Your task to perform on an android device: open app "Viber Messenger" (install if not already installed), go to login, and select forgot password Image 0: 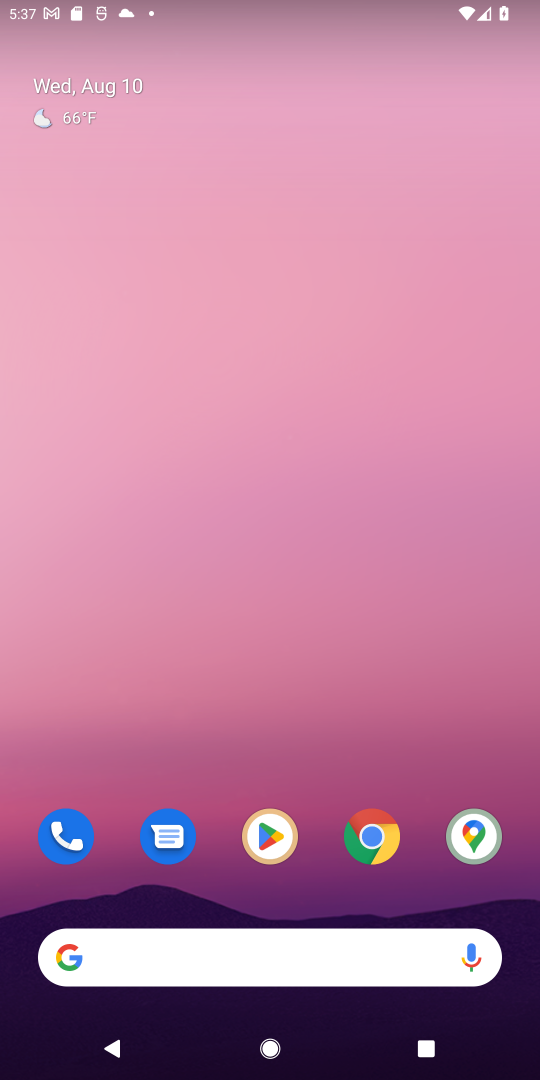
Step 0: drag from (266, 922) to (340, 213)
Your task to perform on an android device: open app "Viber Messenger" (install if not already installed), go to login, and select forgot password Image 1: 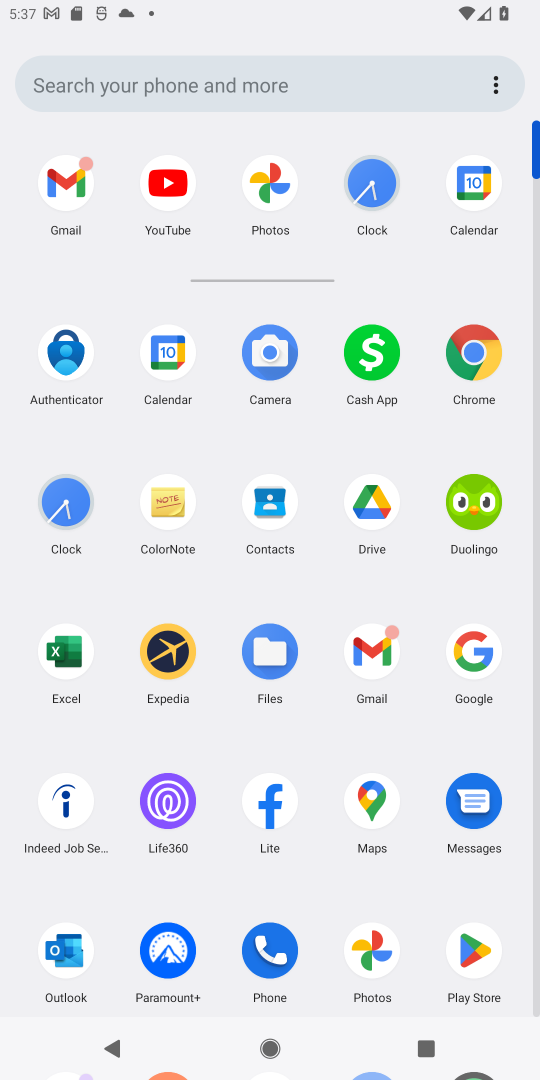
Step 1: drag from (222, 879) to (226, 275)
Your task to perform on an android device: open app "Viber Messenger" (install if not already installed), go to login, and select forgot password Image 2: 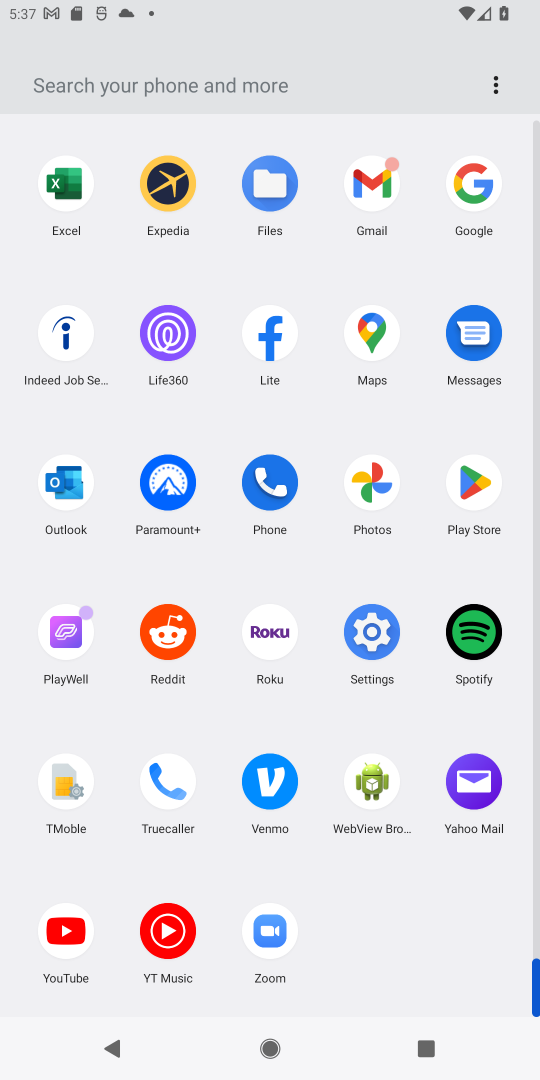
Step 2: click (469, 470)
Your task to perform on an android device: open app "Viber Messenger" (install if not already installed), go to login, and select forgot password Image 3: 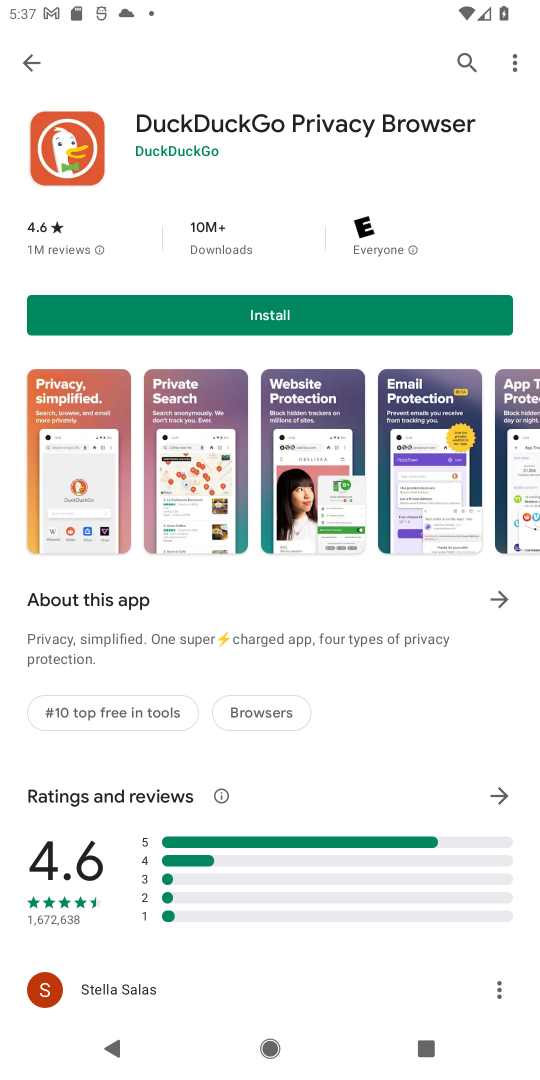
Step 3: click (45, 59)
Your task to perform on an android device: open app "Viber Messenger" (install if not already installed), go to login, and select forgot password Image 4: 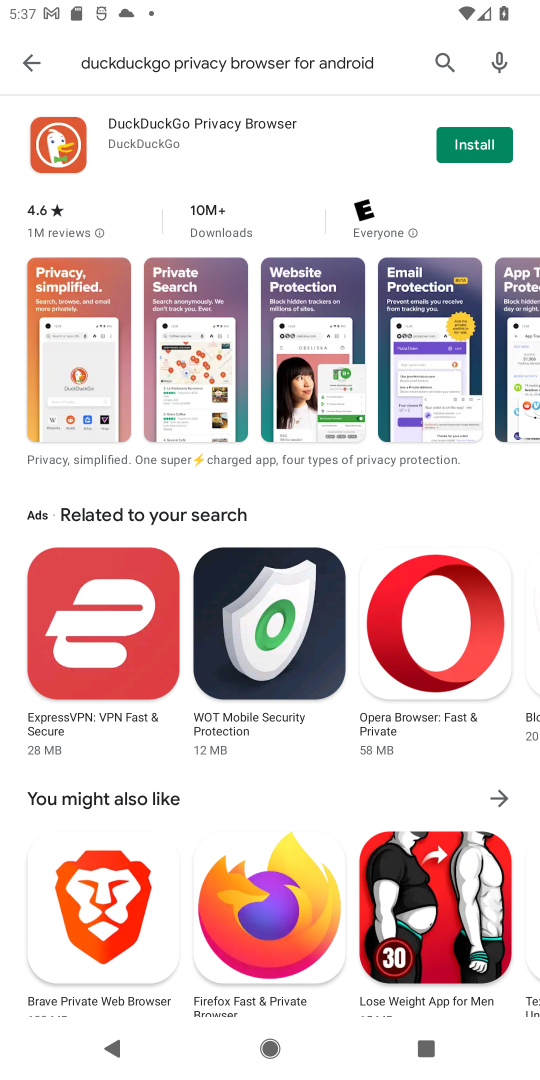
Step 4: click (45, 59)
Your task to perform on an android device: open app "Viber Messenger" (install if not already installed), go to login, and select forgot password Image 5: 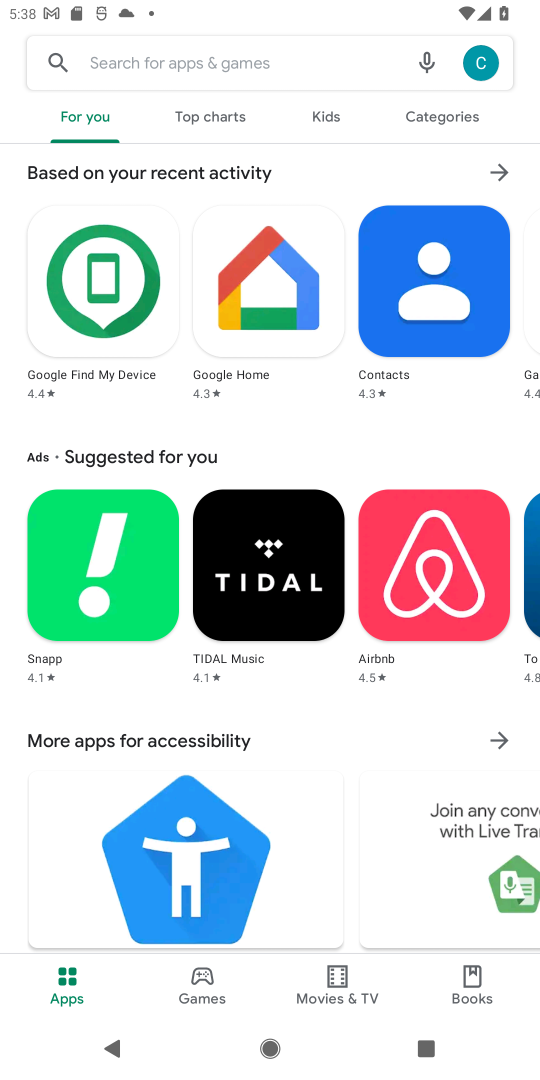
Step 5: click (250, 53)
Your task to perform on an android device: open app "Viber Messenger" (install if not already installed), go to login, and select forgot password Image 6: 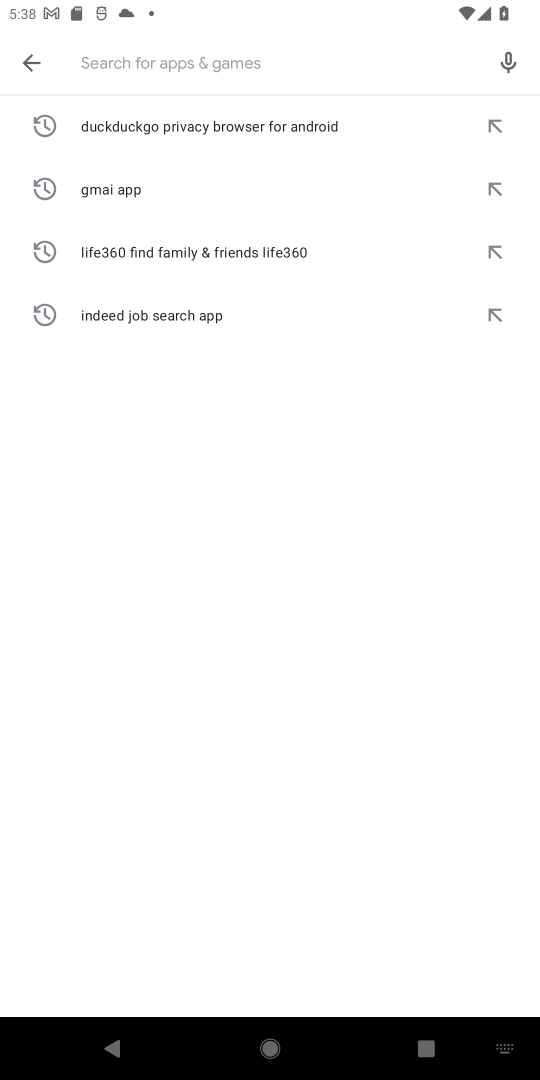
Step 6: type ""
Your task to perform on an android device: open app "Viber Messenger" (install if not already installed), go to login, and select forgot password Image 7: 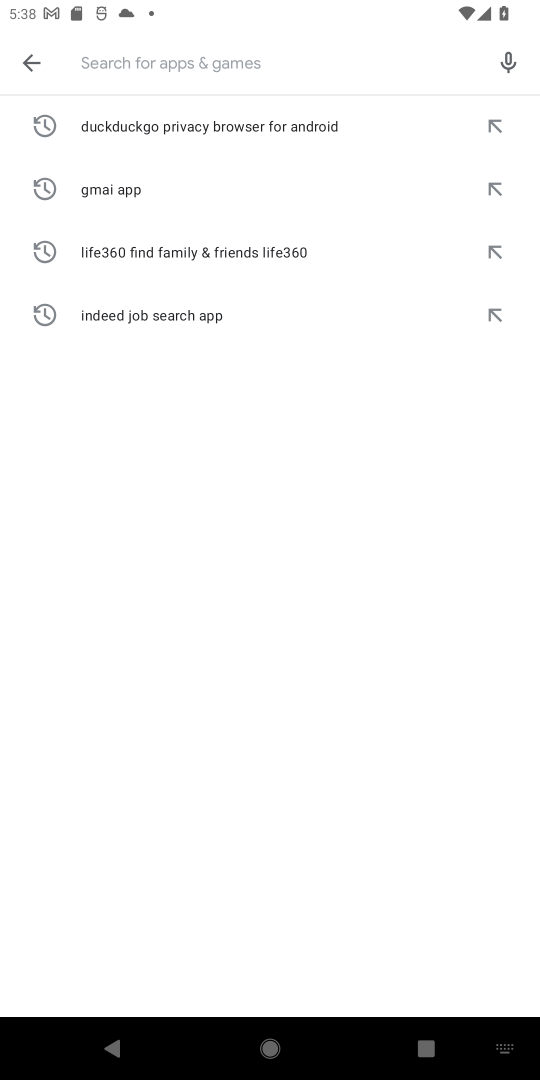
Step 7: type "Viber Messenger "
Your task to perform on an android device: open app "Viber Messenger" (install if not already installed), go to login, and select forgot password Image 8: 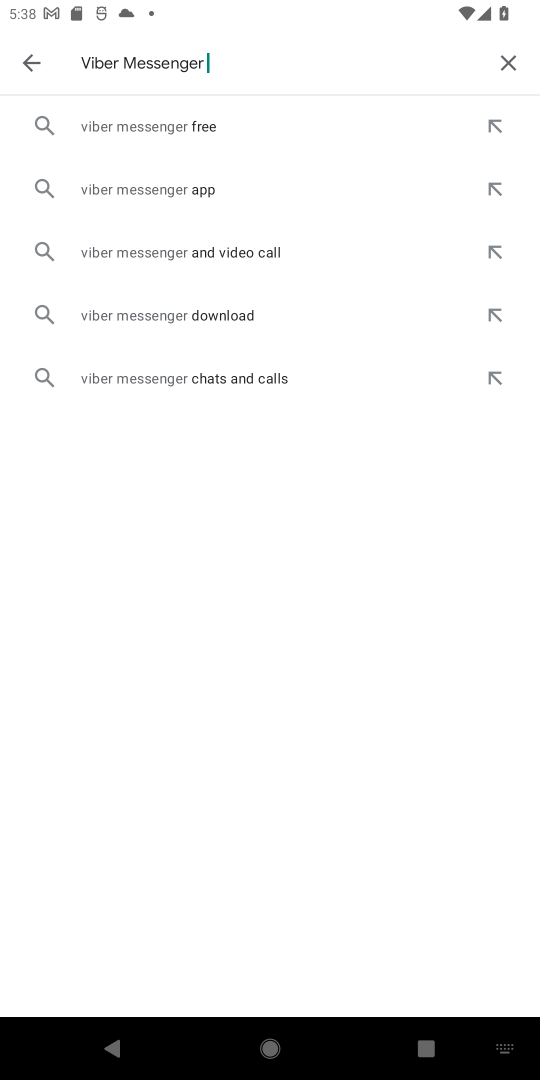
Step 8: click (155, 132)
Your task to perform on an android device: open app "Viber Messenger" (install if not already installed), go to login, and select forgot password Image 9: 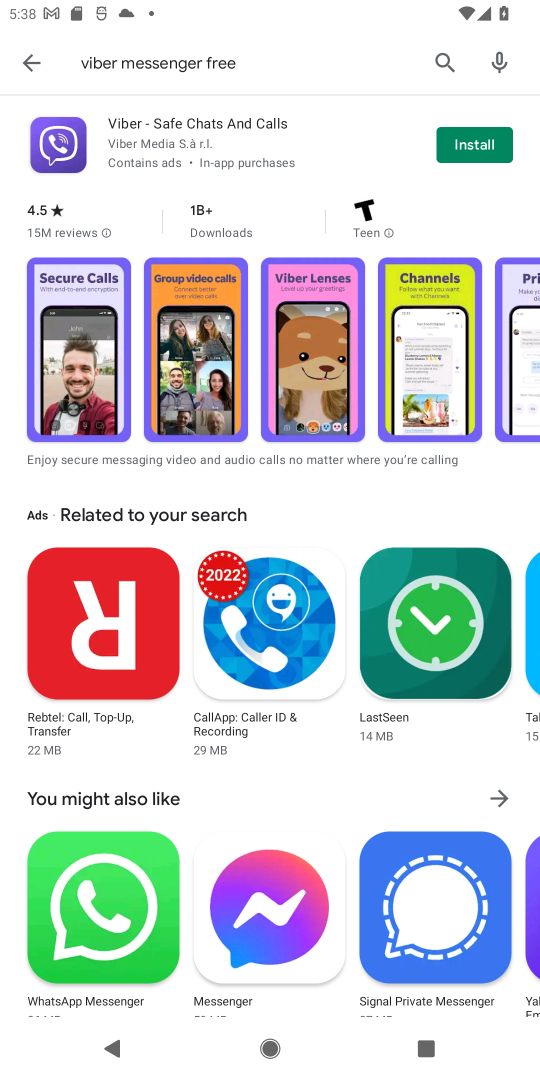
Step 9: click (490, 132)
Your task to perform on an android device: open app "Viber Messenger" (install if not already installed), go to login, and select forgot password Image 10: 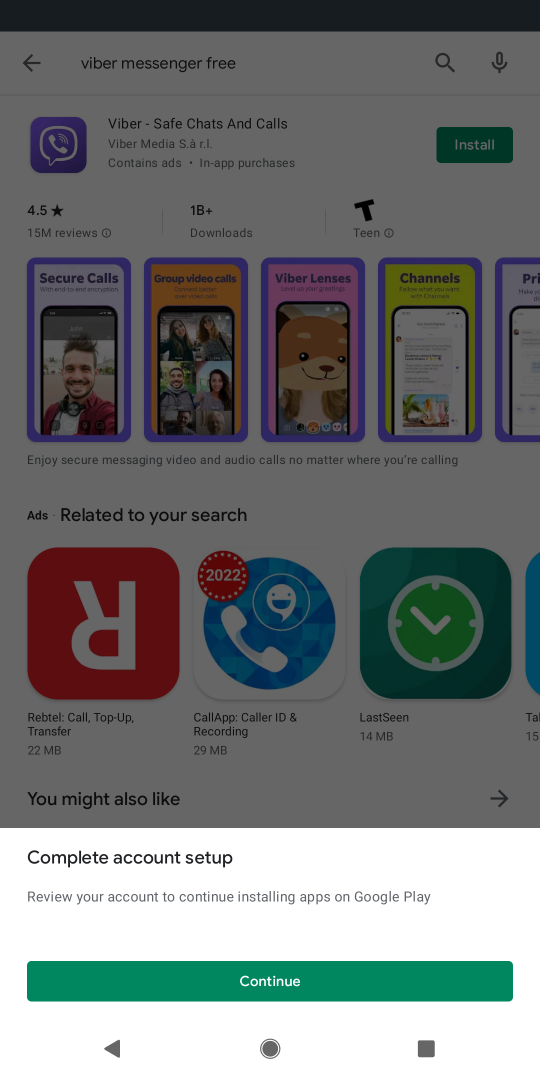
Step 10: click (363, 981)
Your task to perform on an android device: open app "Viber Messenger" (install if not already installed), go to login, and select forgot password Image 11: 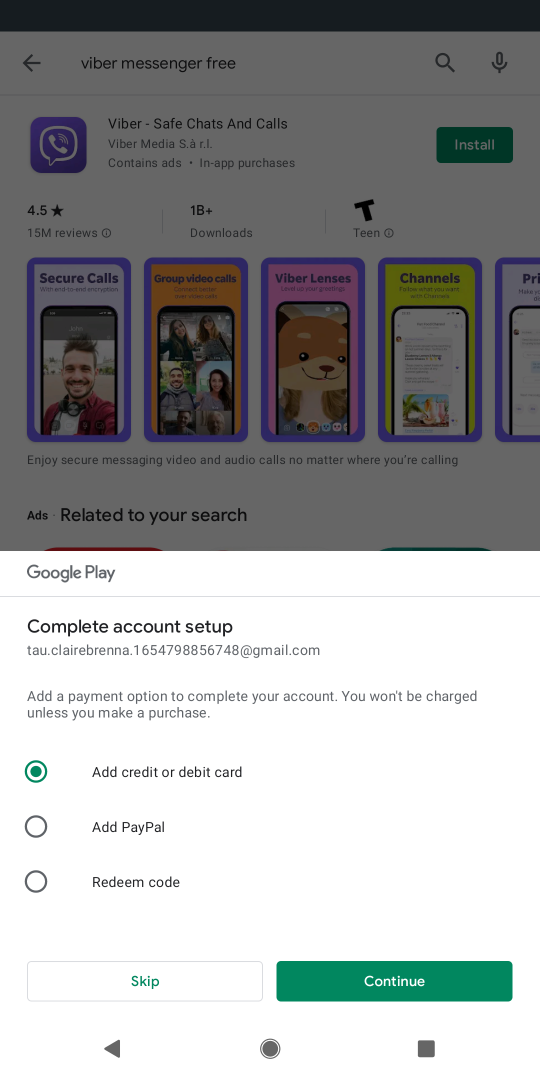
Step 11: task complete